Your task to perform on an android device: open app "Venmo" Image 0: 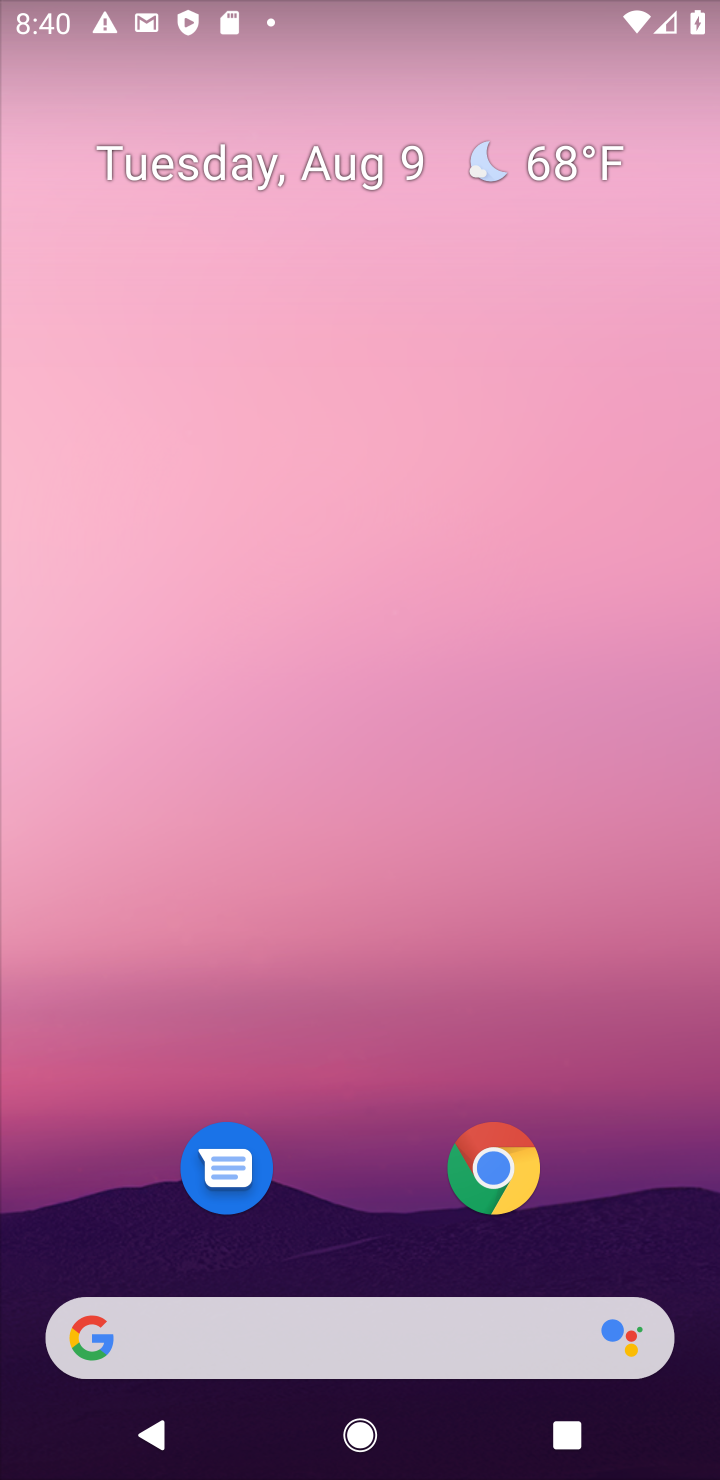
Step 0: drag from (234, 1329) to (545, 11)
Your task to perform on an android device: open app "Venmo" Image 1: 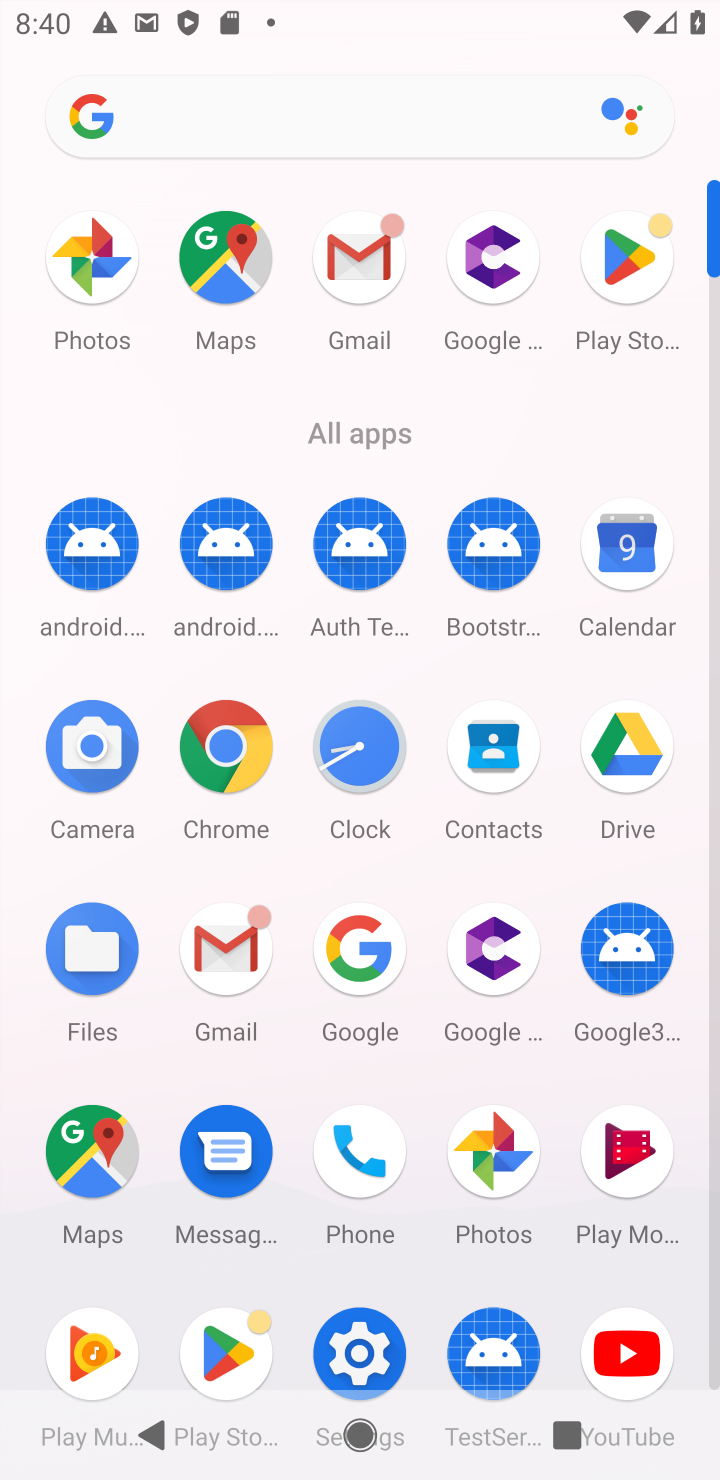
Step 1: click (634, 265)
Your task to perform on an android device: open app "Venmo" Image 2: 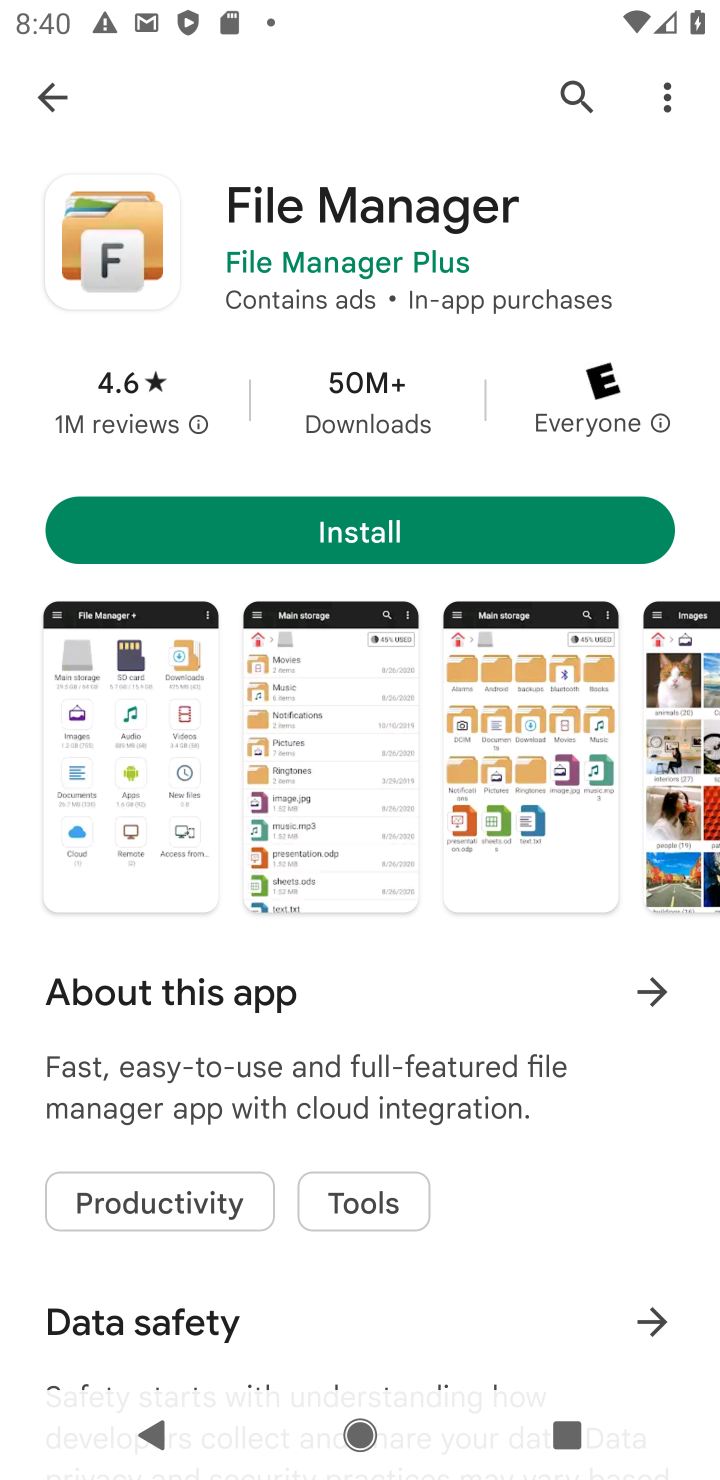
Step 2: press back button
Your task to perform on an android device: open app "Venmo" Image 3: 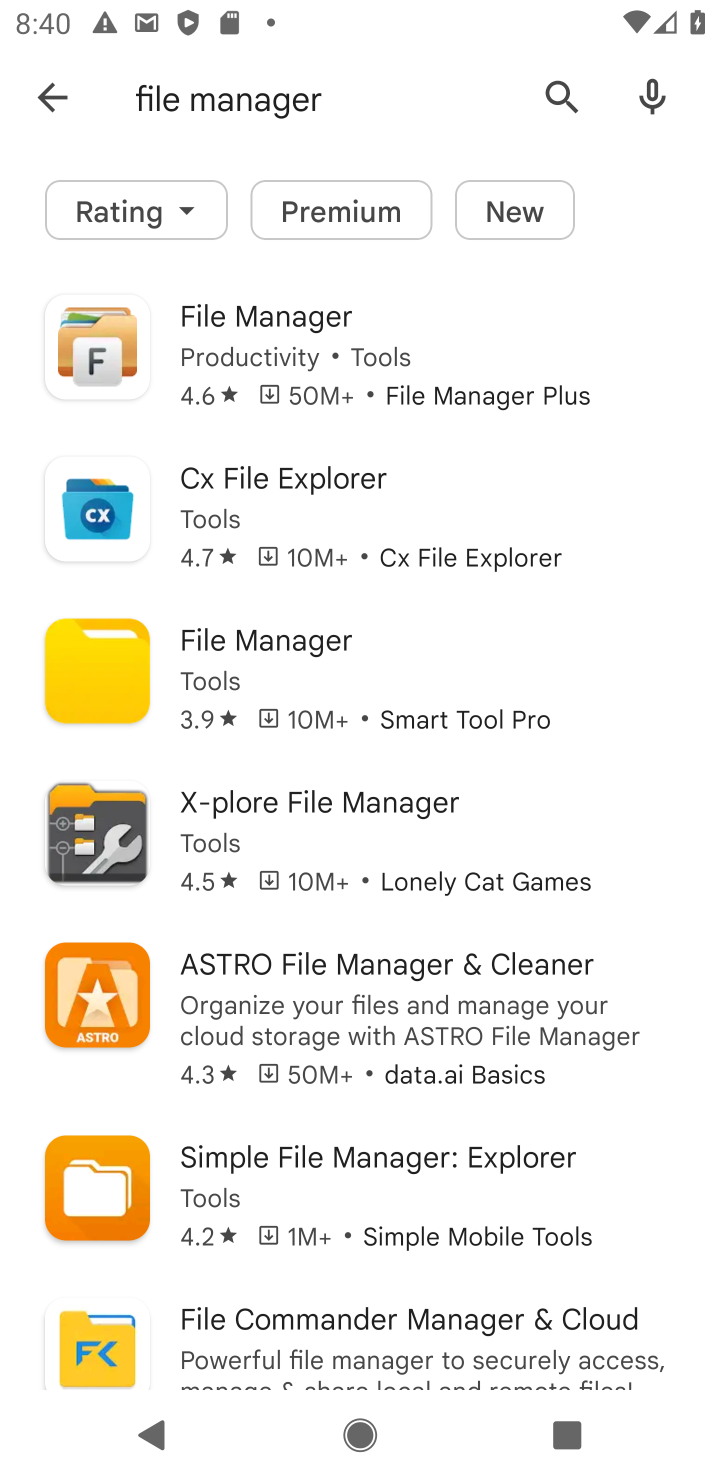
Step 3: click (552, 99)
Your task to perform on an android device: open app "Venmo" Image 4: 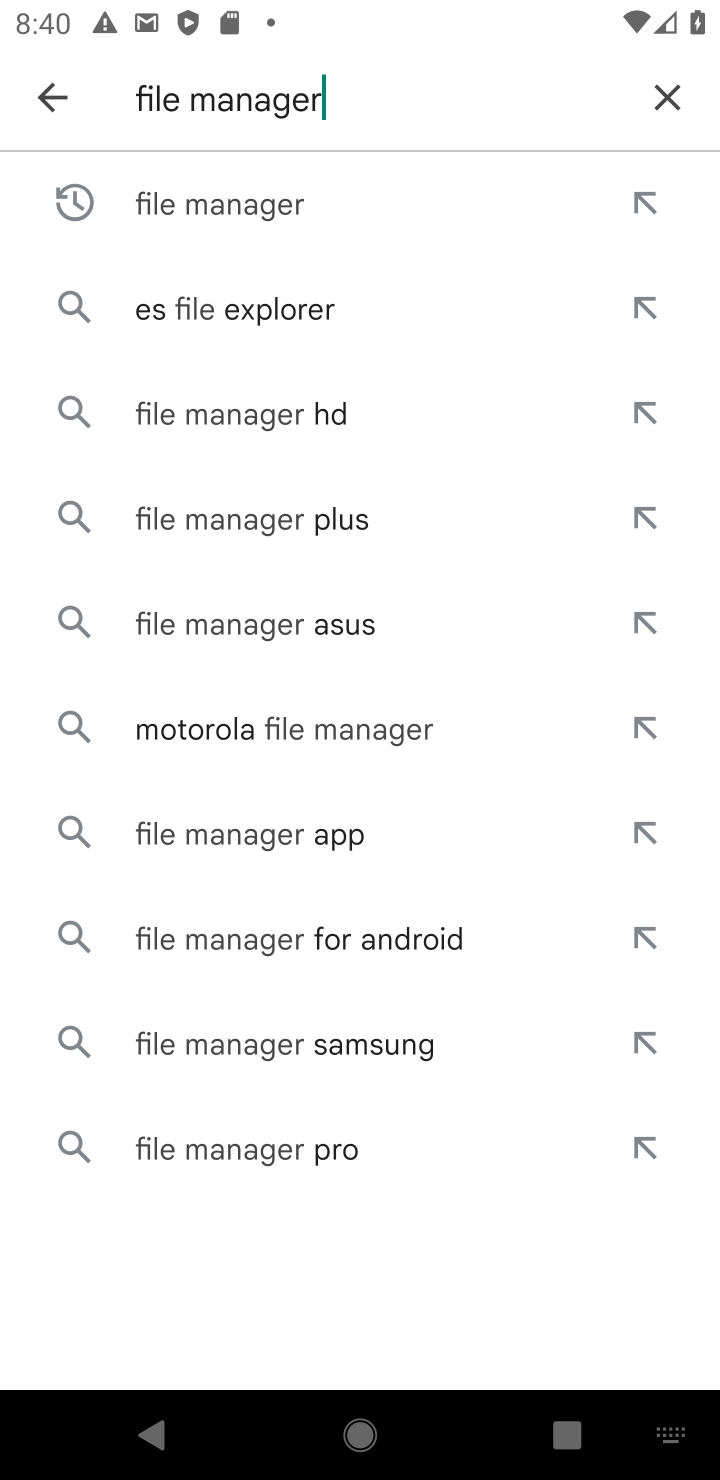
Step 4: click (667, 97)
Your task to perform on an android device: open app "Venmo" Image 5: 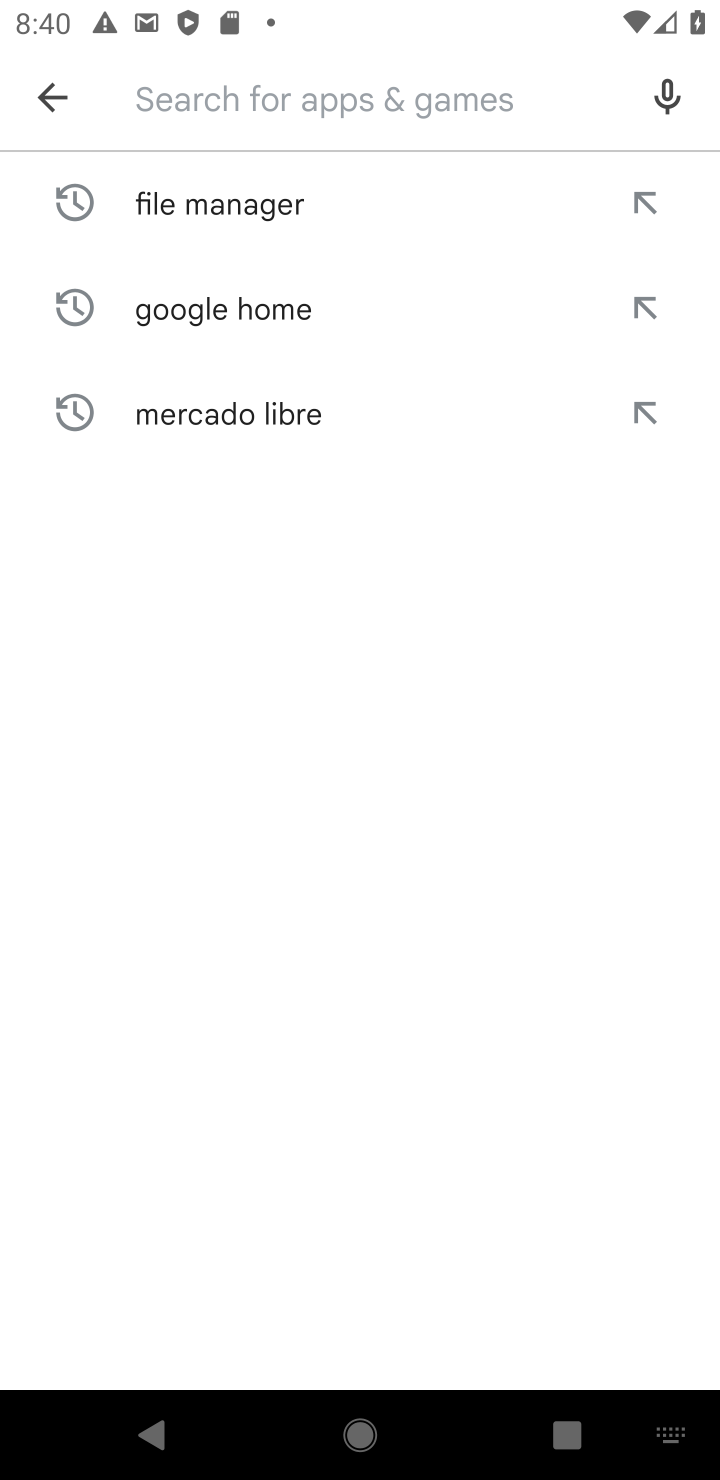
Step 5: type "venmo"
Your task to perform on an android device: open app "Venmo" Image 6: 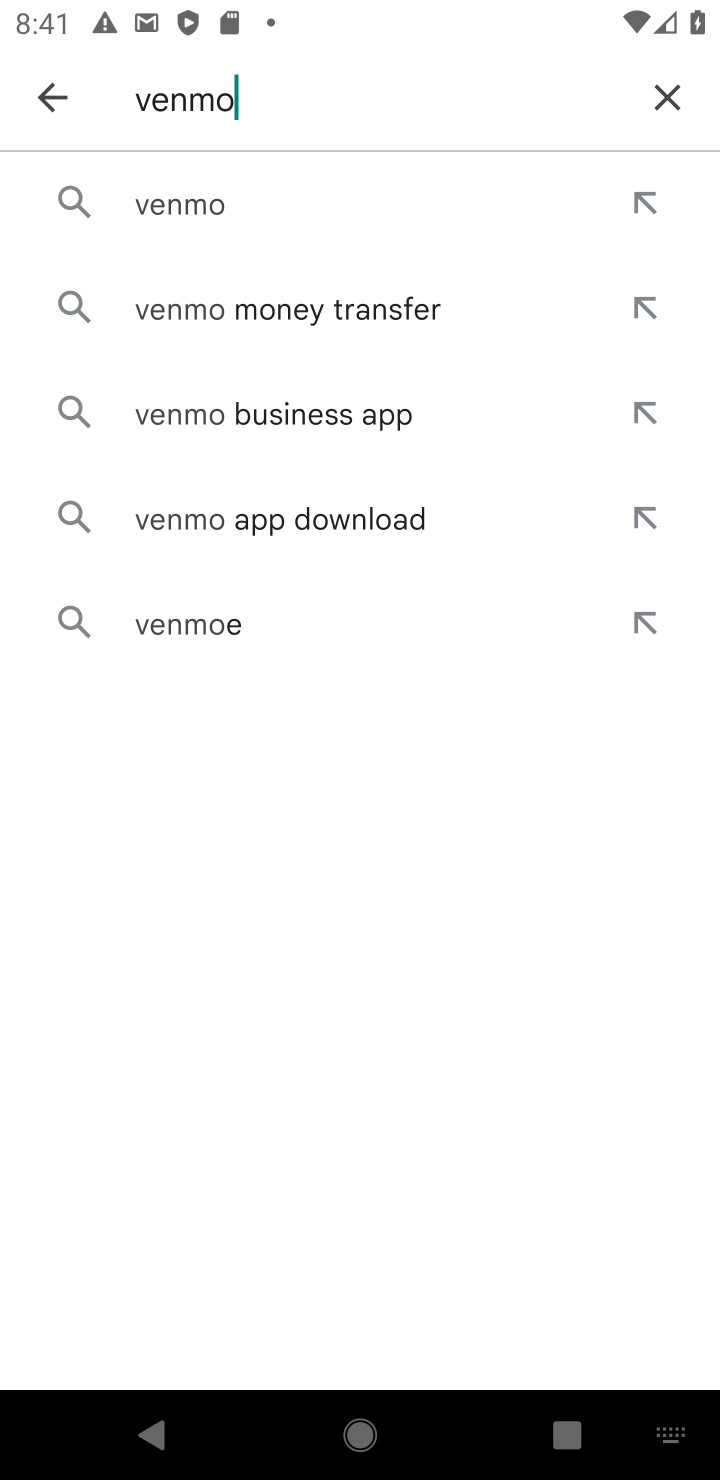
Step 6: click (310, 186)
Your task to perform on an android device: open app "Venmo" Image 7: 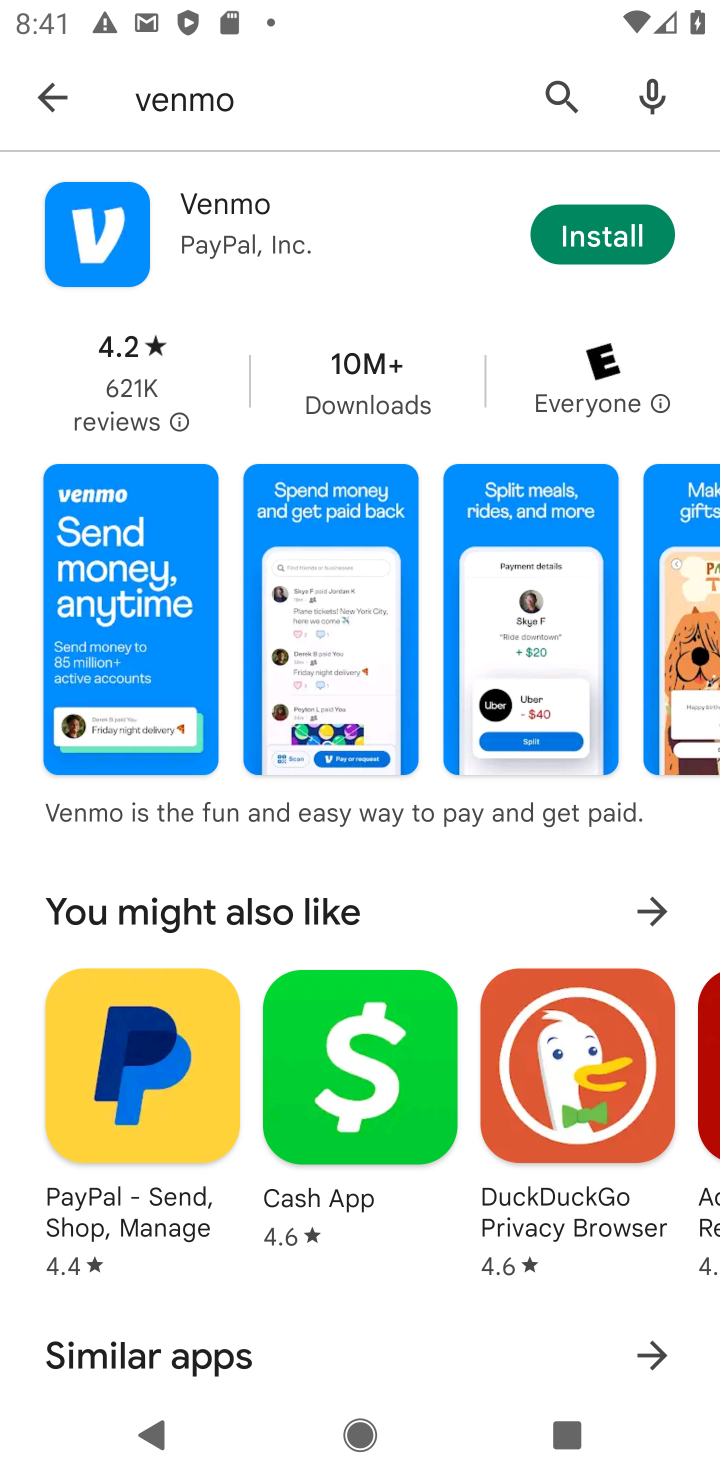
Step 7: task complete